Your task to perform on an android device: manage bookmarks in the chrome app Image 0: 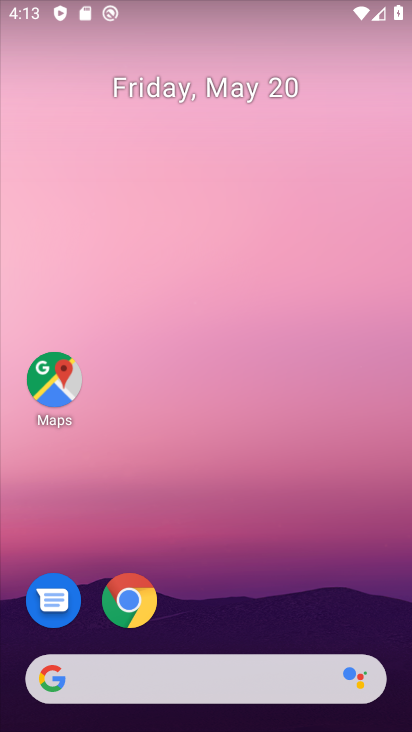
Step 0: click (135, 596)
Your task to perform on an android device: manage bookmarks in the chrome app Image 1: 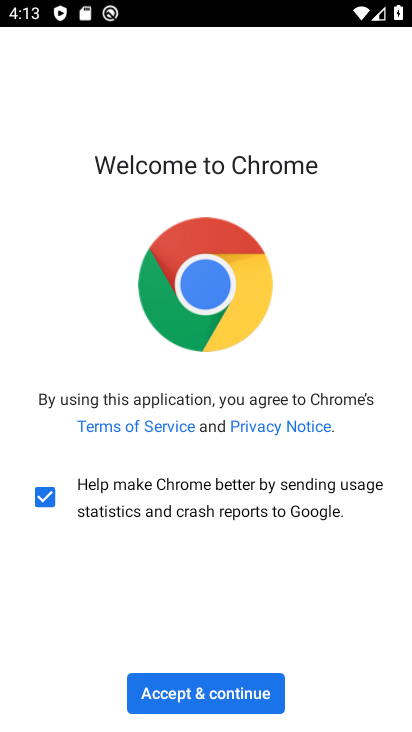
Step 1: click (237, 691)
Your task to perform on an android device: manage bookmarks in the chrome app Image 2: 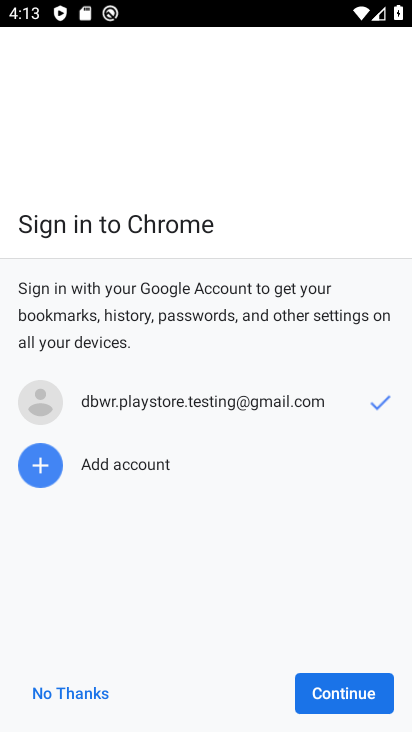
Step 2: click (329, 695)
Your task to perform on an android device: manage bookmarks in the chrome app Image 3: 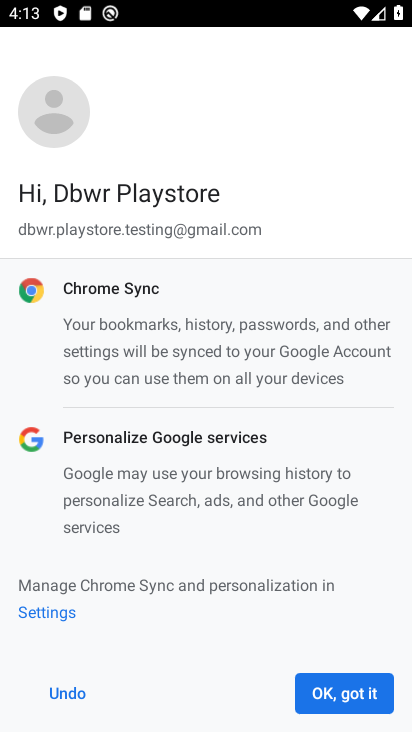
Step 3: click (329, 695)
Your task to perform on an android device: manage bookmarks in the chrome app Image 4: 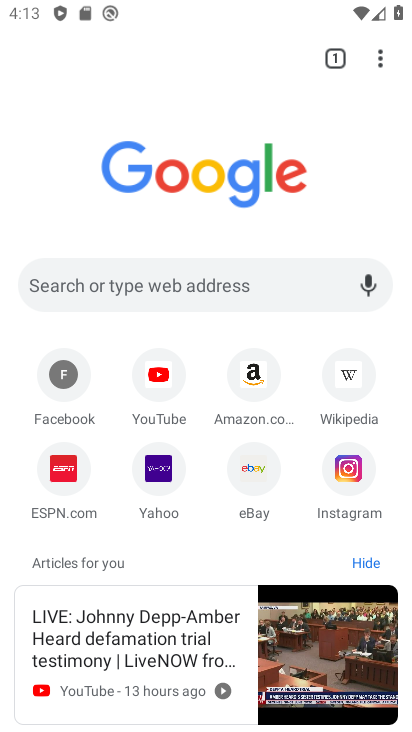
Step 4: click (382, 59)
Your task to perform on an android device: manage bookmarks in the chrome app Image 5: 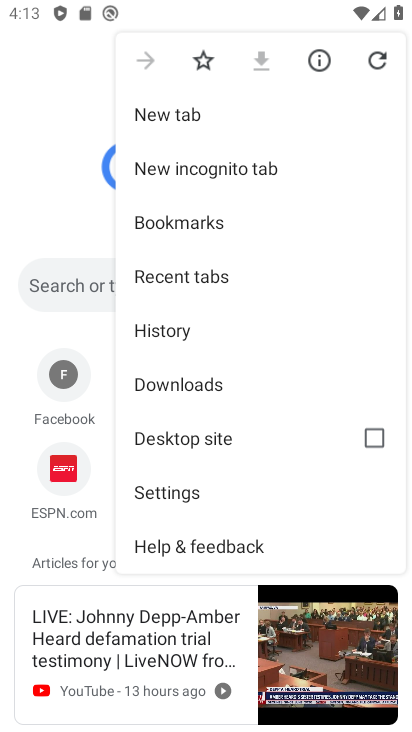
Step 5: click (234, 222)
Your task to perform on an android device: manage bookmarks in the chrome app Image 6: 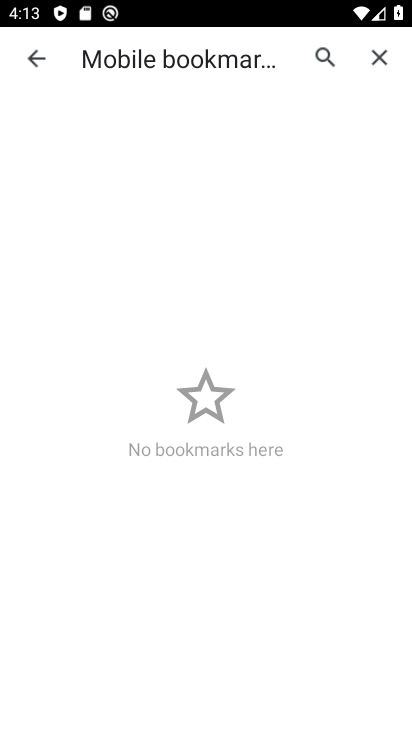
Step 6: task complete